Your task to perform on an android device: open a bookmark in the chrome app Image 0: 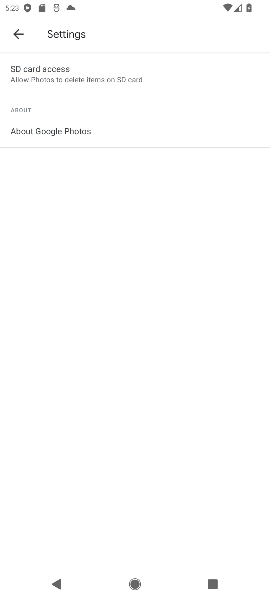
Step 0: press home button
Your task to perform on an android device: open a bookmark in the chrome app Image 1: 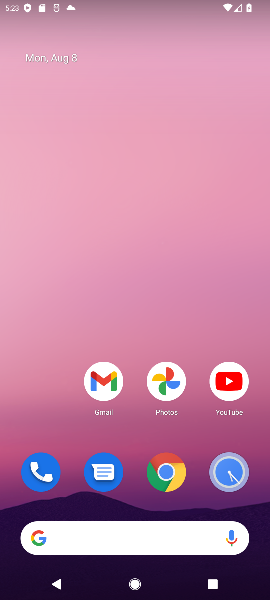
Step 1: click (162, 475)
Your task to perform on an android device: open a bookmark in the chrome app Image 2: 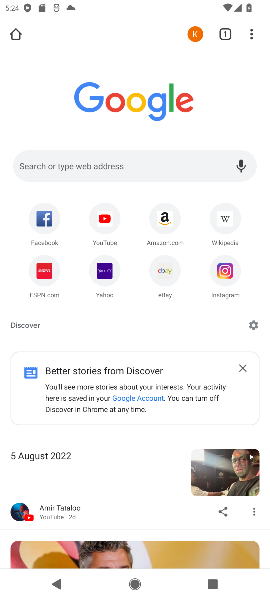
Step 2: drag from (251, 35) to (144, 205)
Your task to perform on an android device: open a bookmark in the chrome app Image 3: 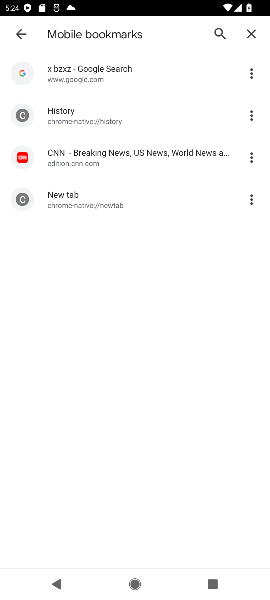
Step 3: click (100, 156)
Your task to perform on an android device: open a bookmark in the chrome app Image 4: 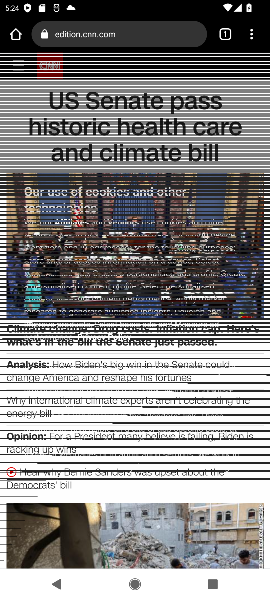
Step 4: task complete